Your task to perform on an android device: Turn on the flashlight Image 0: 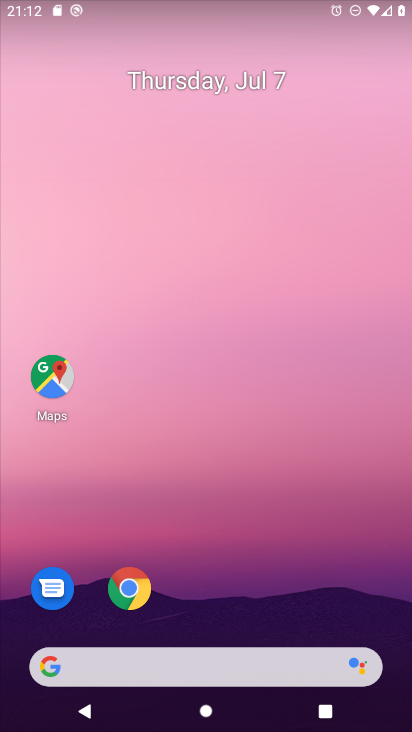
Step 0: drag from (247, 623) to (259, 229)
Your task to perform on an android device: Turn on the flashlight Image 1: 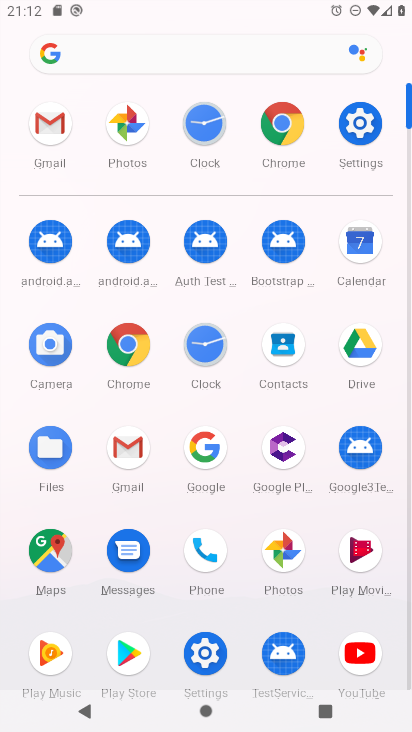
Step 1: click (362, 116)
Your task to perform on an android device: Turn on the flashlight Image 2: 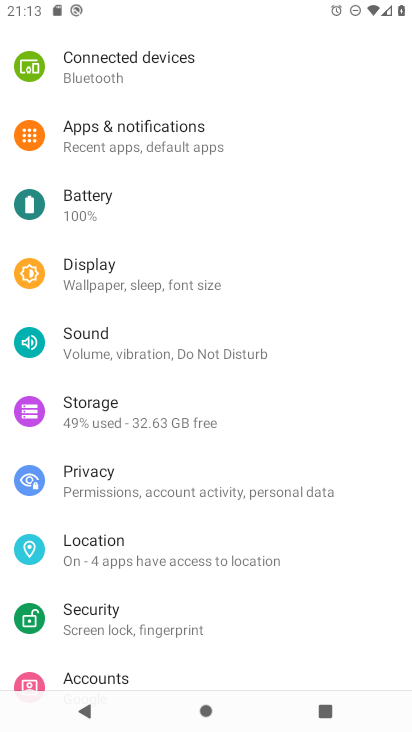
Step 2: task complete